Your task to perform on an android device: add a contact in the contacts app Image 0: 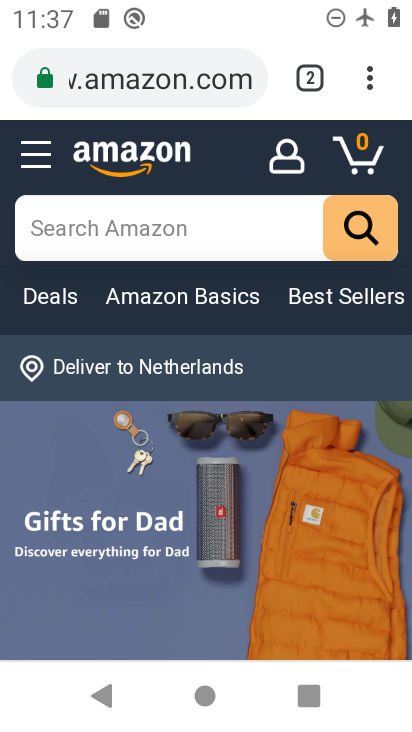
Step 0: press home button
Your task to perform on an android device: add a contact in the contacts app Image 1: 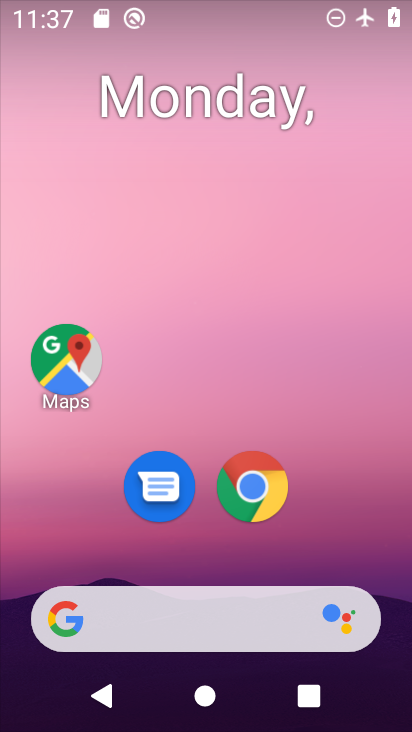
Step 1: drag from (80, 526) to (243, 213)
Your task to perform on an android device: add a contact in the contacts app Image 2: 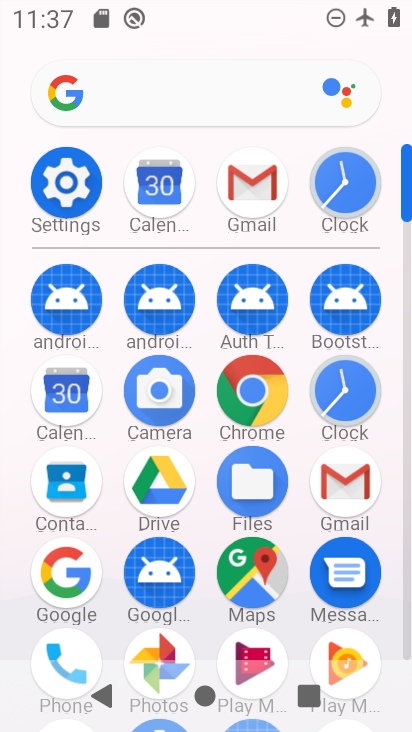
Step 2: click (49, 636)
Your task to perform on an android device: add a contact in the contacts app Image 3: 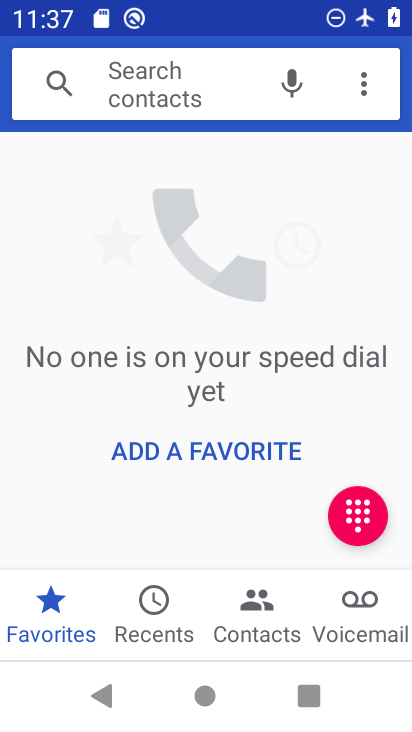
Step 3: click (253, 606)
Your task to perform on an android device: add a contact in the contacts app Image 4: 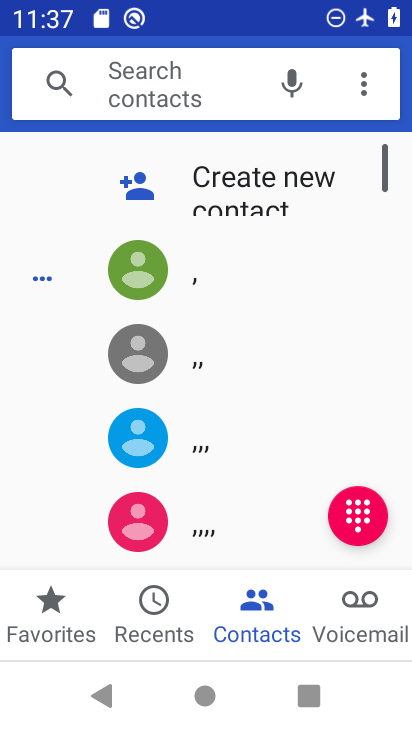
Step 4: click (219, 180)
Your task to perform on an android device: add a contact in the contacts app Image 5: 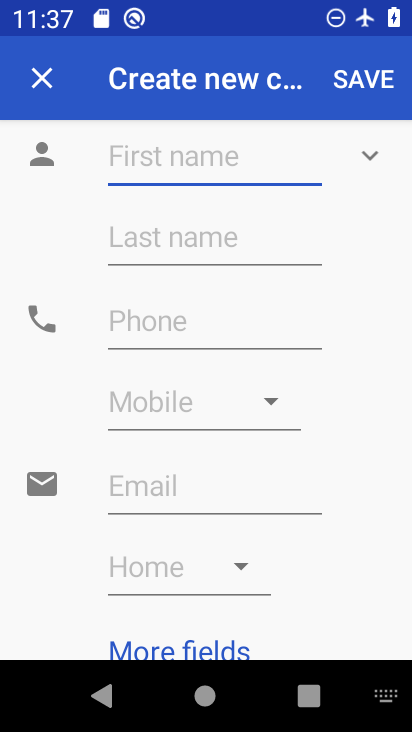
Step 5: click (196, 151)
Your task to perform on an android device: add a contact in the contacts app Image 6: 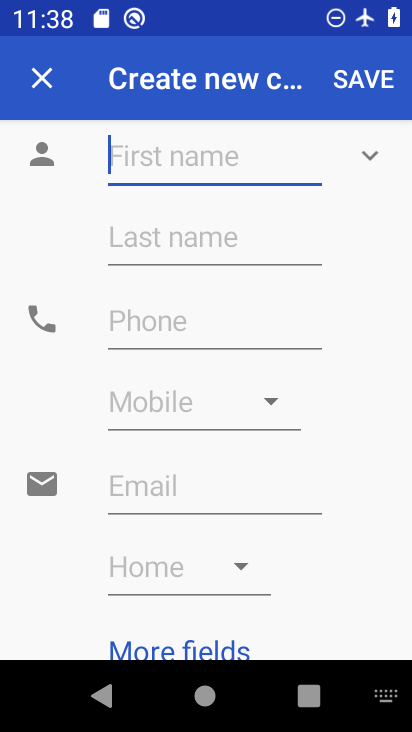
Step 6: type "vfvfd"
Your task to perform on an android device: add a contact in the contacts app Image 7: 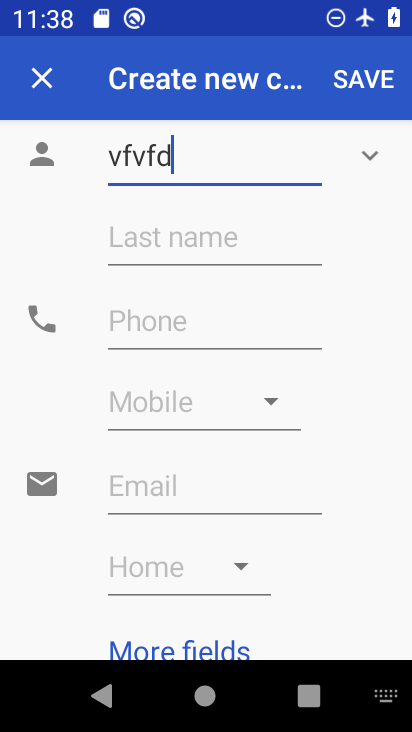
Step 7: click (363, 70)
Your task to perform on an android device: add a contact in the contacts app Image 8: 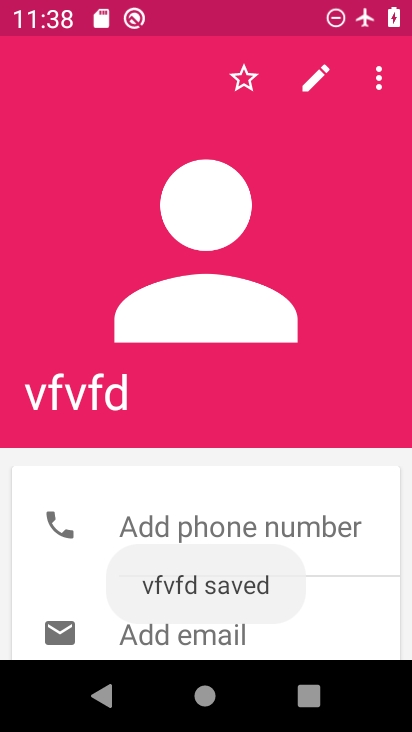
Step 8: task complete